Your task to perform on an android device: Open Android settings Image 0: 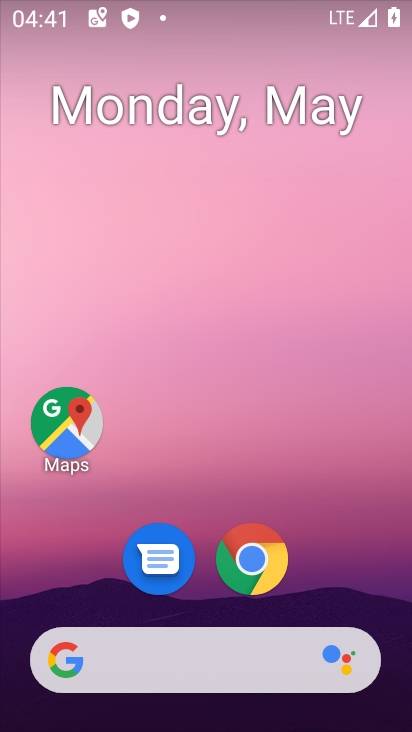
Step 0: drag from (307, 638) to (335, 93)
Your task to perform on an android device: Open Android settings Image 1: 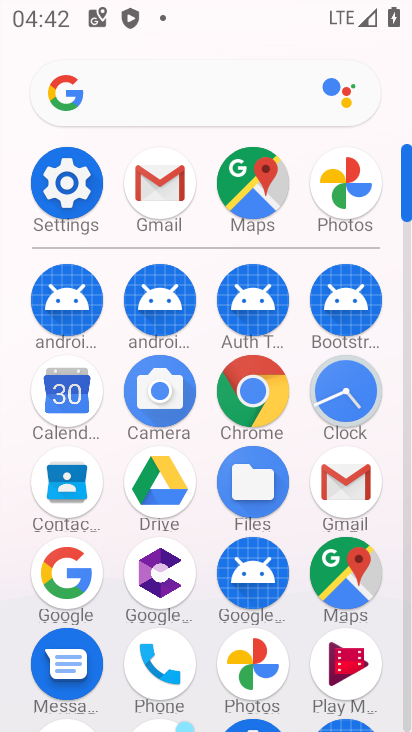
Step 1: click (76, 181)
Your task to perform on an android device: Open Android settings Image 2: 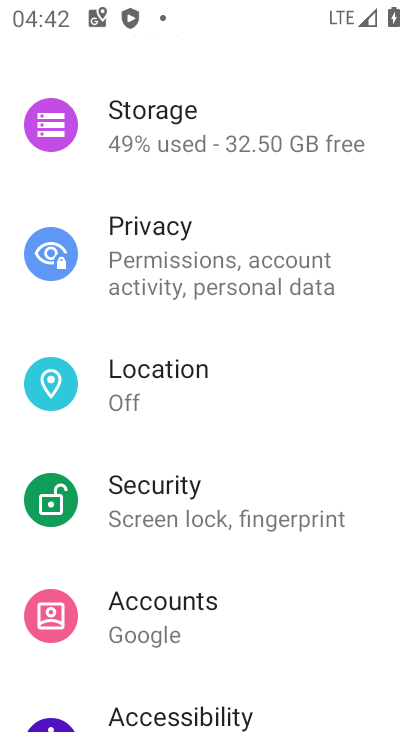
Step 2: drag from (241, 600) to (297, 117)
Your task to perform on an android device: Open Android settings Image 3: 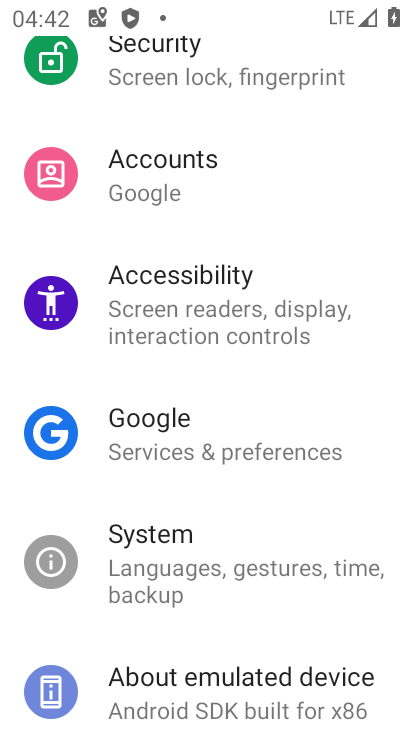
Step 3: click (259, 693)
Your task to perform on an android device: Open Android settings Image 4: 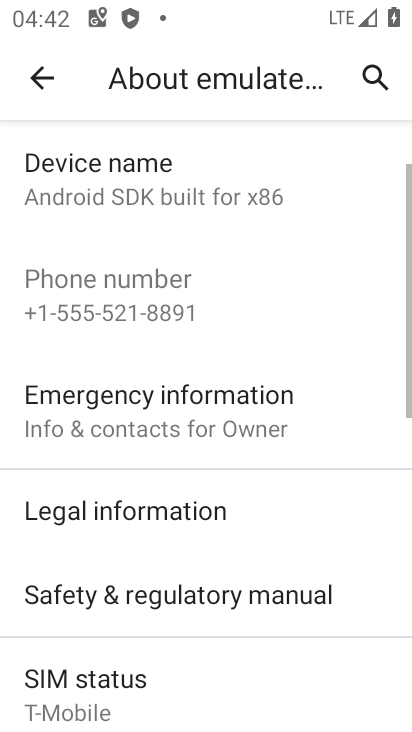
Step 4: drag from (177, 690) to (256, 132)
Your task to perform on an android device: Open Android settings Image 5: 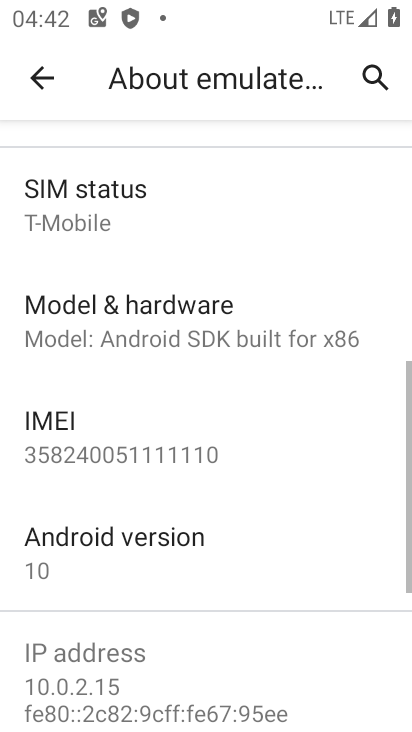
Step 5: click (206, 543)
Your task to perform on an android device: Open Android settings Image 6: 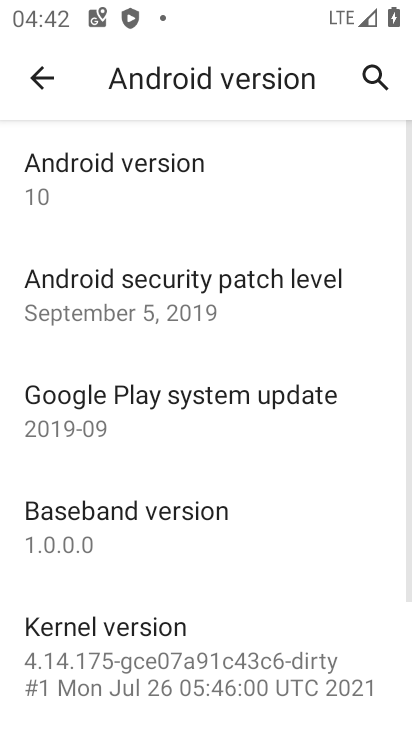
Step 6: task complete